Your task to perform on an android device: Add "alienware aurora" to the cart on walmart.com, then select checkout. Image 0: 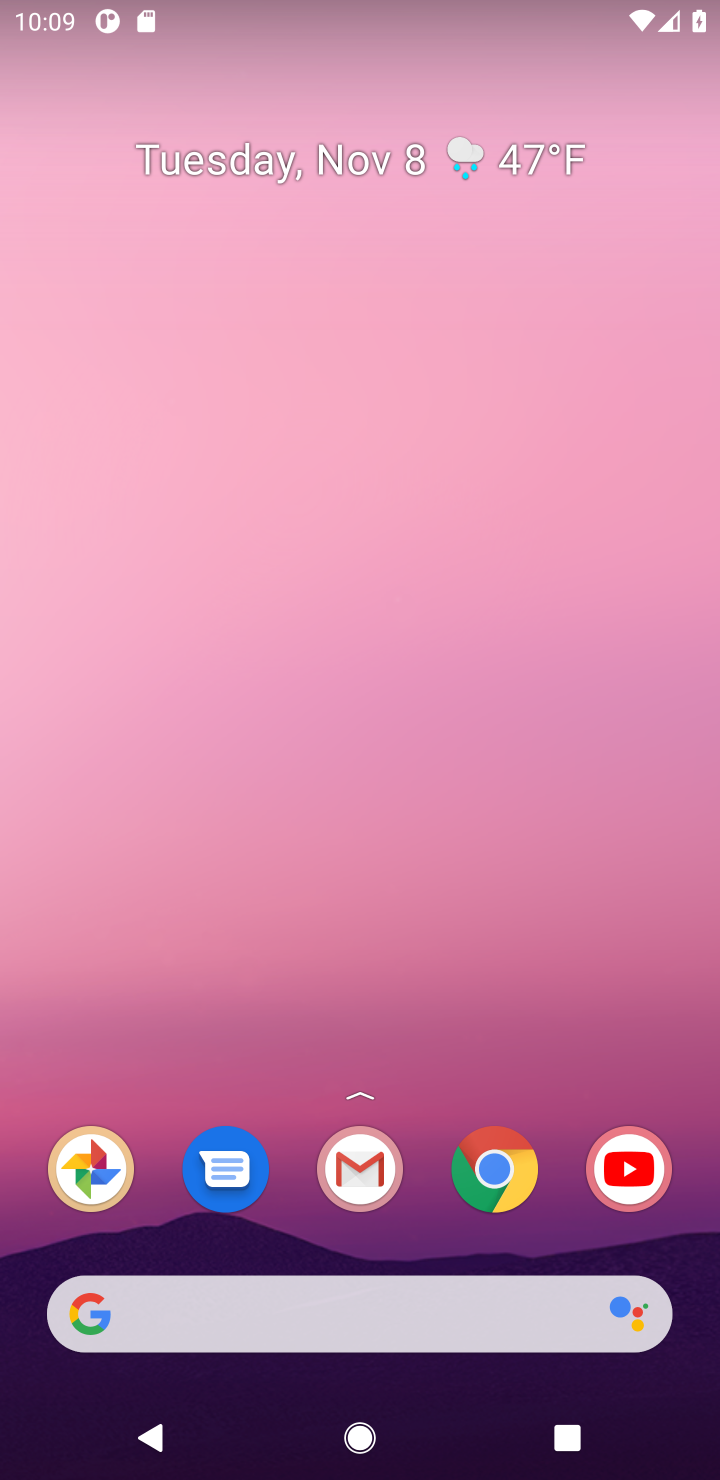
Step 0: click (483, 1161)
Your task to perform on an android device: Add "alienware aurora" to the cart on walmart.com, then select checkout. Image 1: 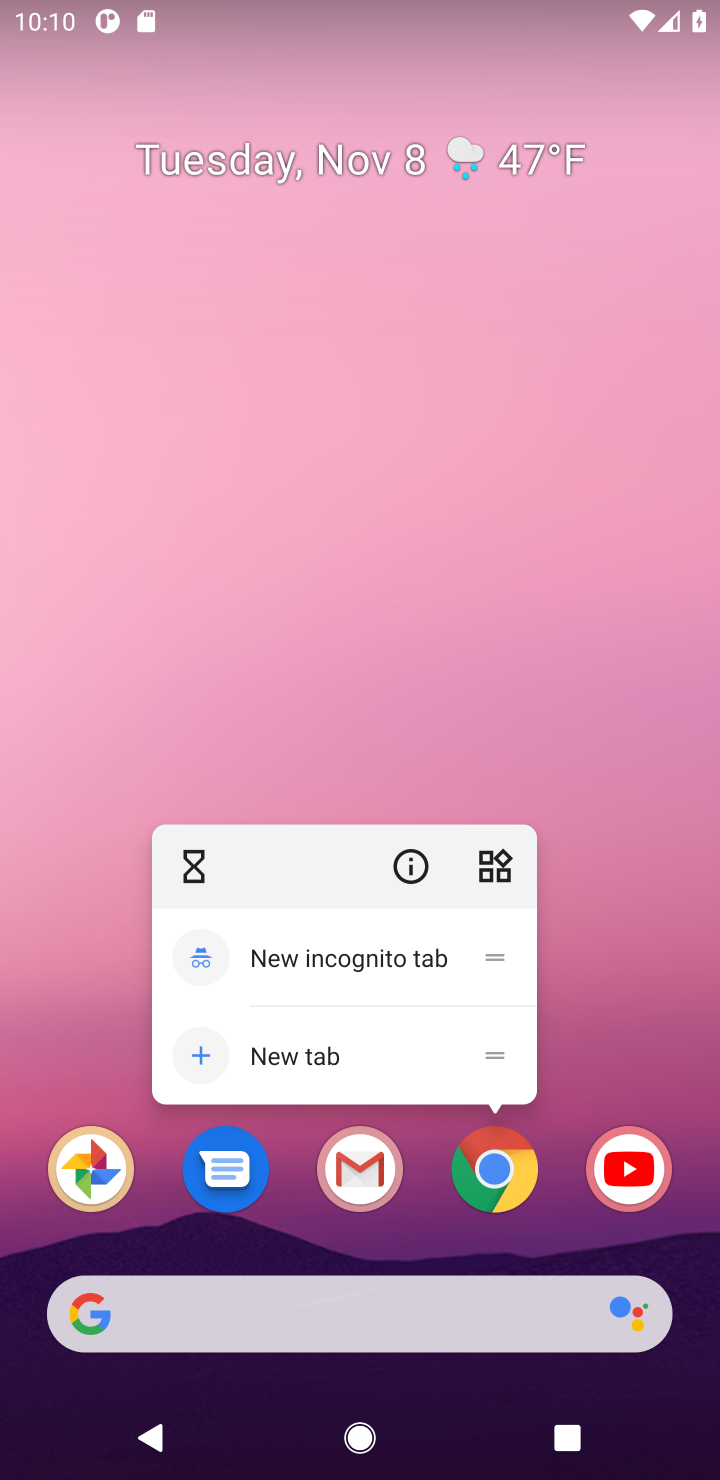
Step 1: click (483, 1161)
Your task to perform on an android device: Add "alienware aurora" to the cart on walmart.com, then select checkout. Image 2: 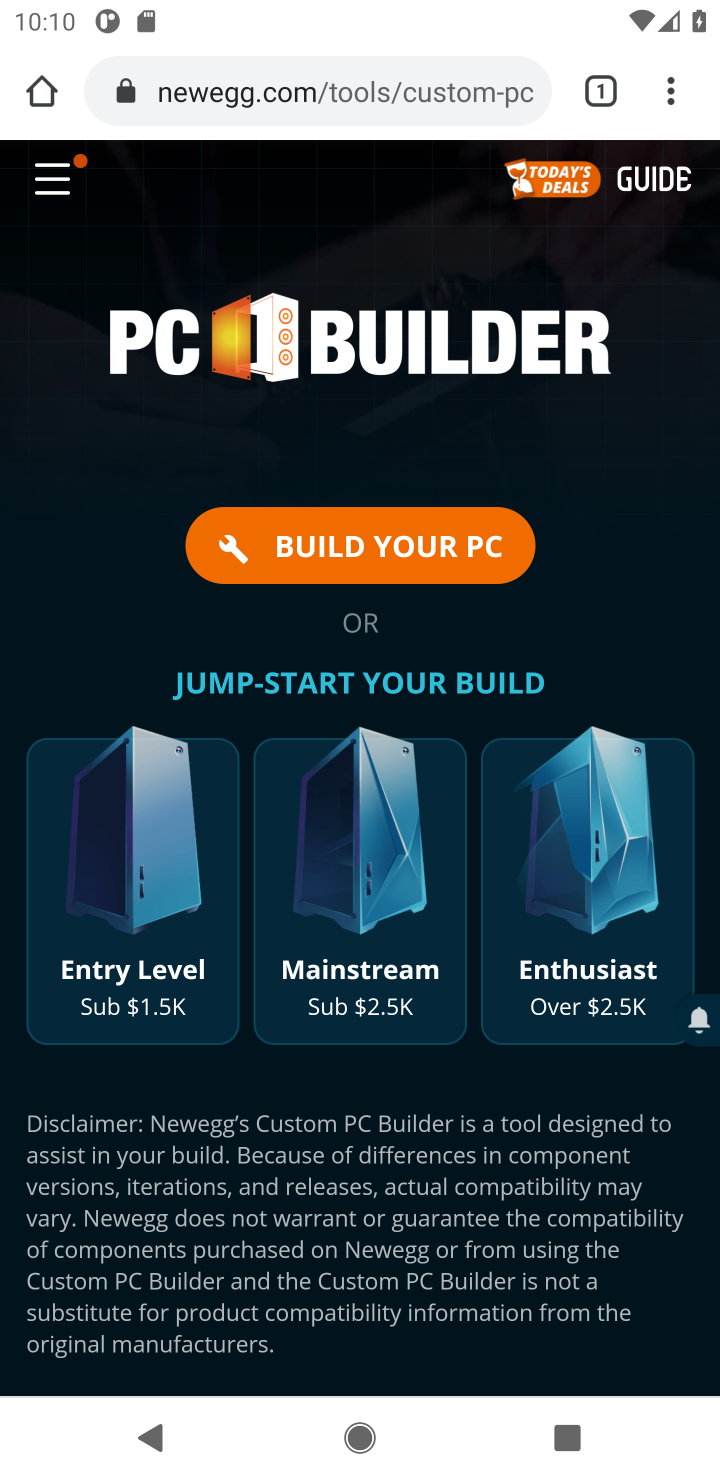
Step 2: click (228, 103)
Your task to perform on an android device: Add "alienware aurora" to the cart on walmart.com, then select checkout. Image 3: 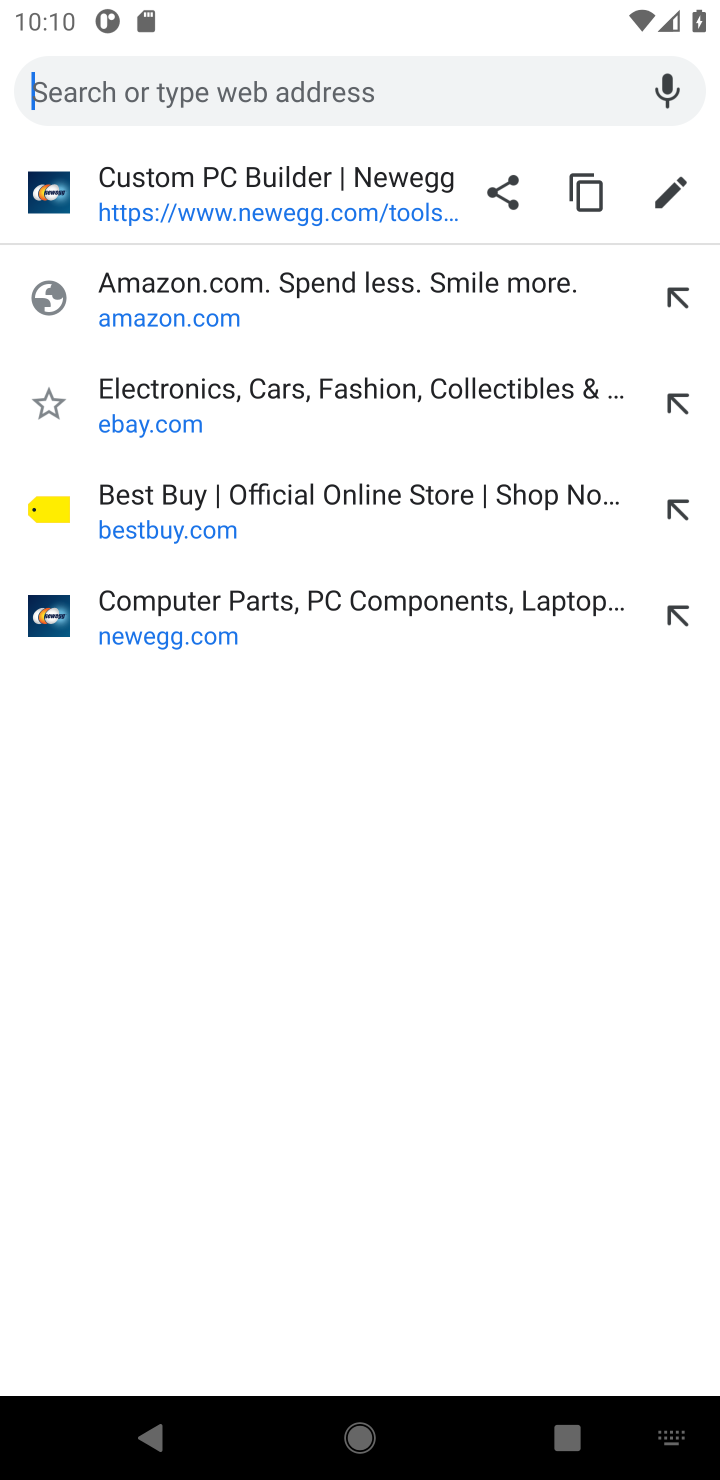
Step 3: type "walmart.com"
Your task to perform on an android device: Add "alienware aurora" to the cart on walmart.com, then select checkout. Image 4: 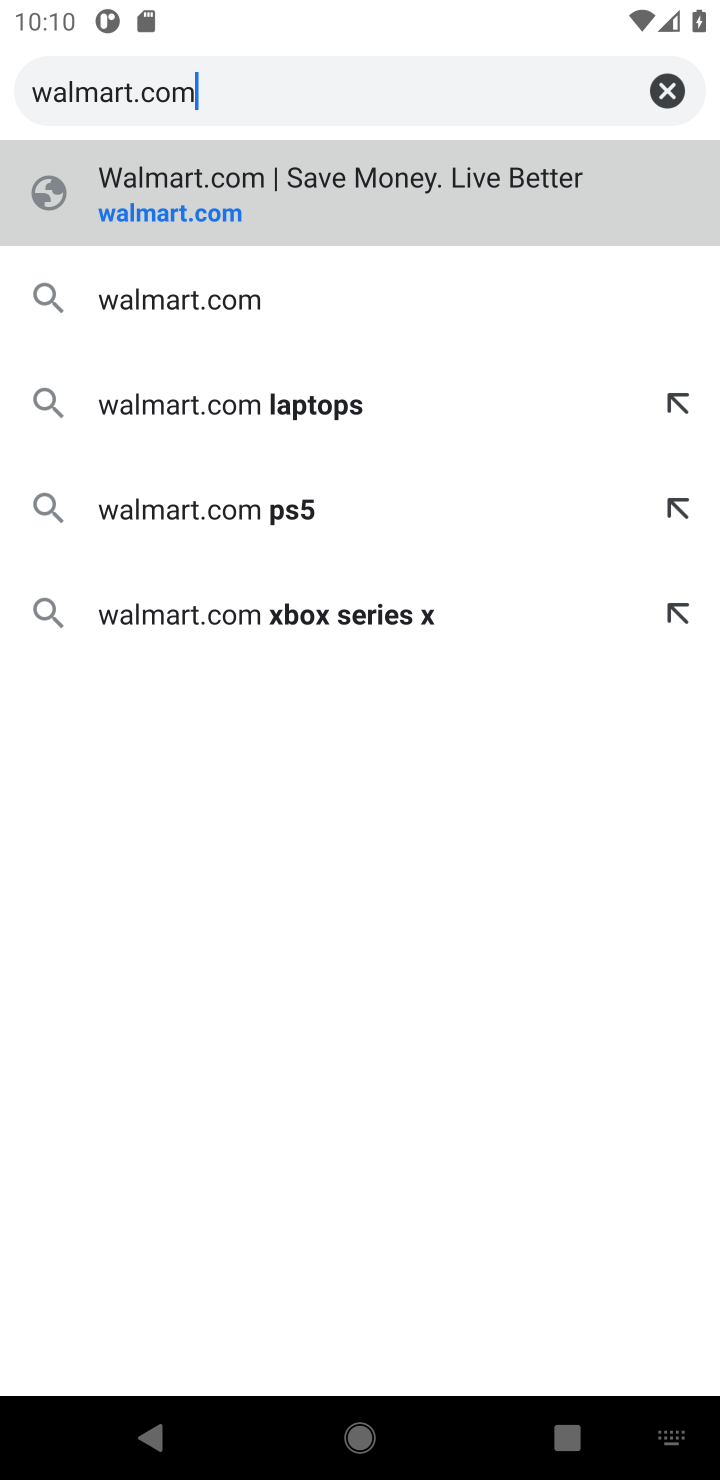
Step 4: click (232, 314)
Your task to perform on an android device: Add "alienware aurora" to the cart on walmart.com, then select checkout. Image 5: 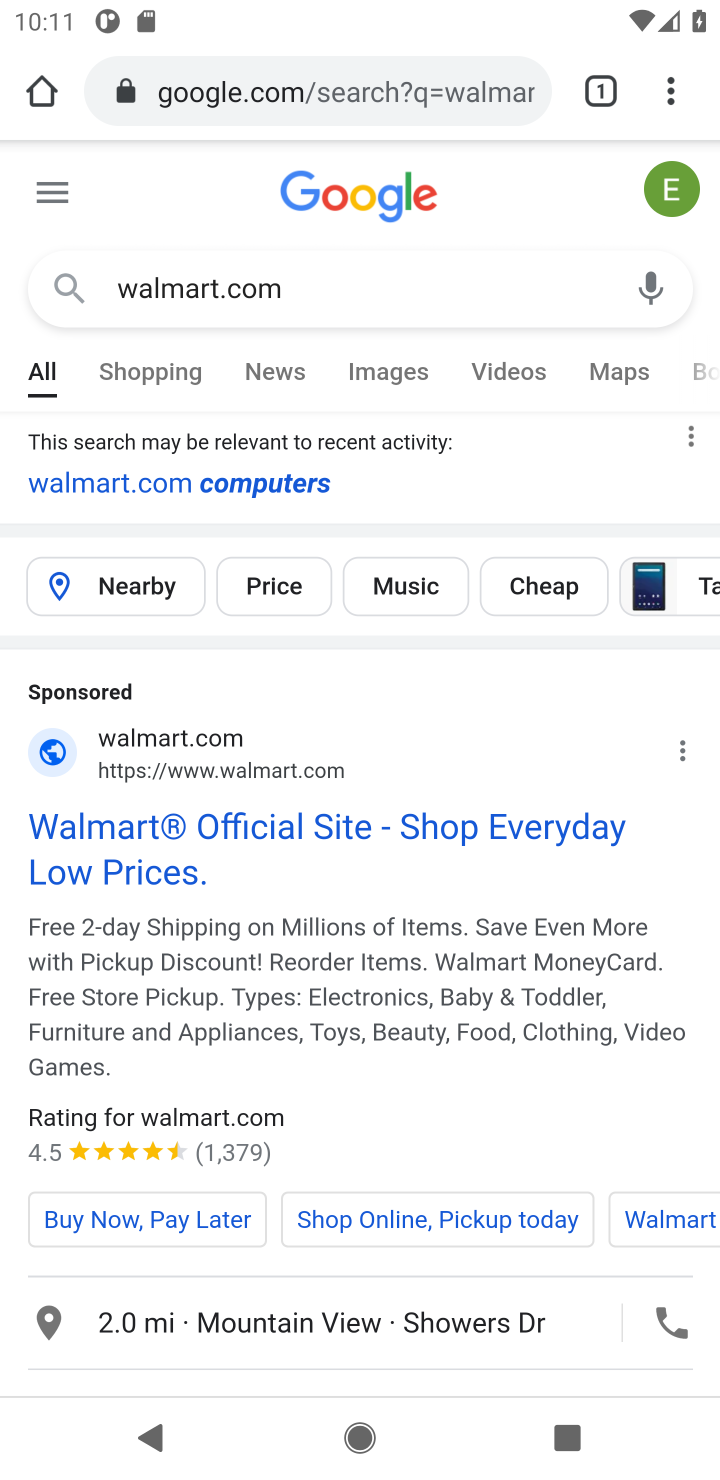
Step 5: click (222, 773)
Your task to perform on an android device: Add "alienware aurora" to the cart on walmart.com, then select checkout. Image 6: 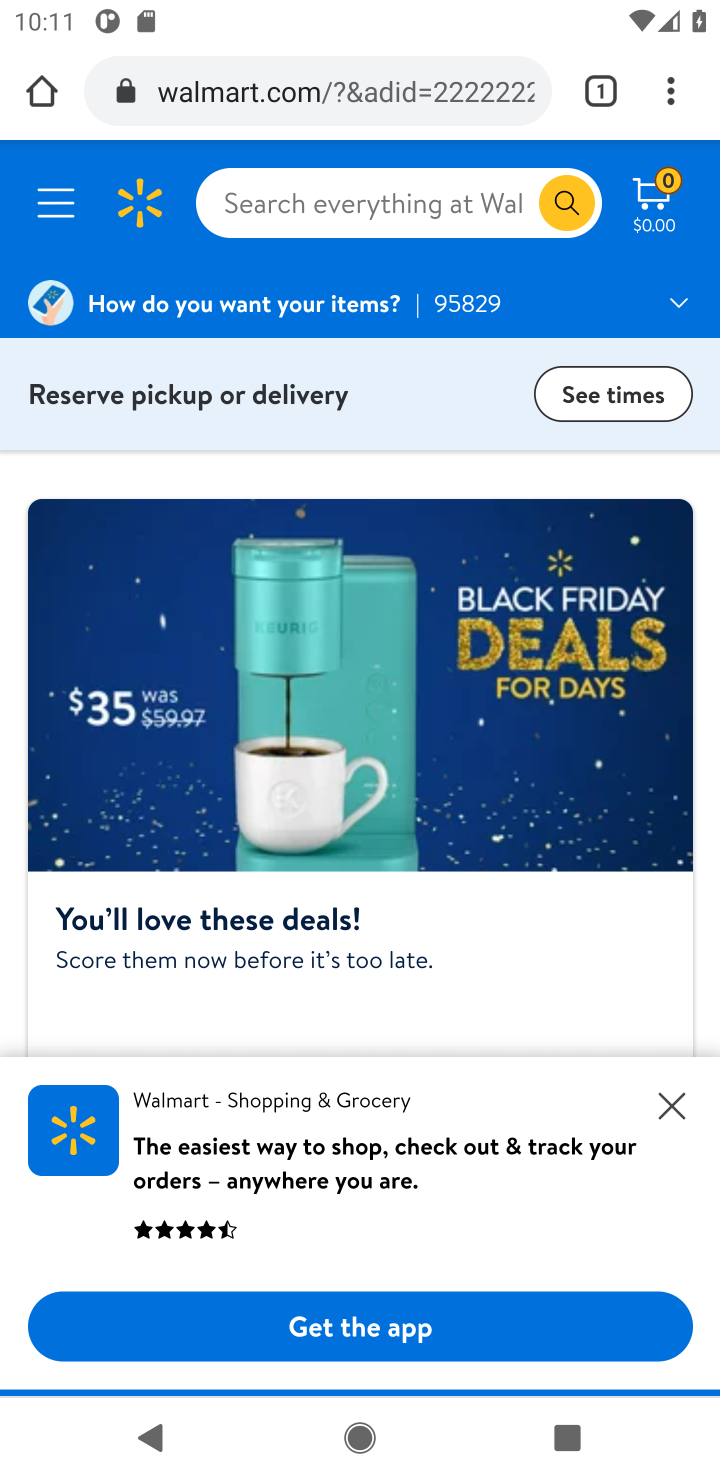
Step 6: click (670, 1099)
Your task to perform on an android device: Add "alienware aurora" to the cart on walmart.com, then select checkout. Image 7: 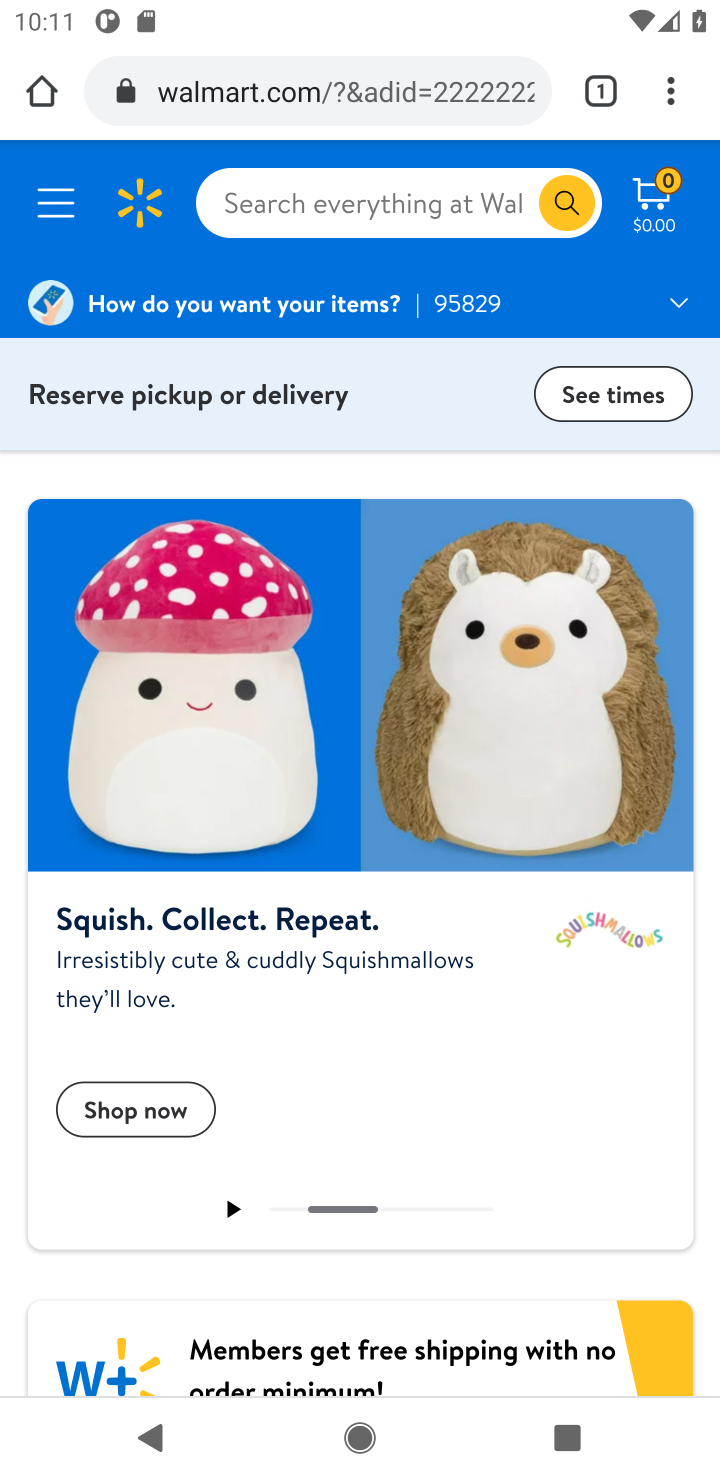
Step 7: click (426, 200)
Your task to perform on an android device: Add "alienware aurora" to the cart on walmart.com, then select checkout. Image 8: 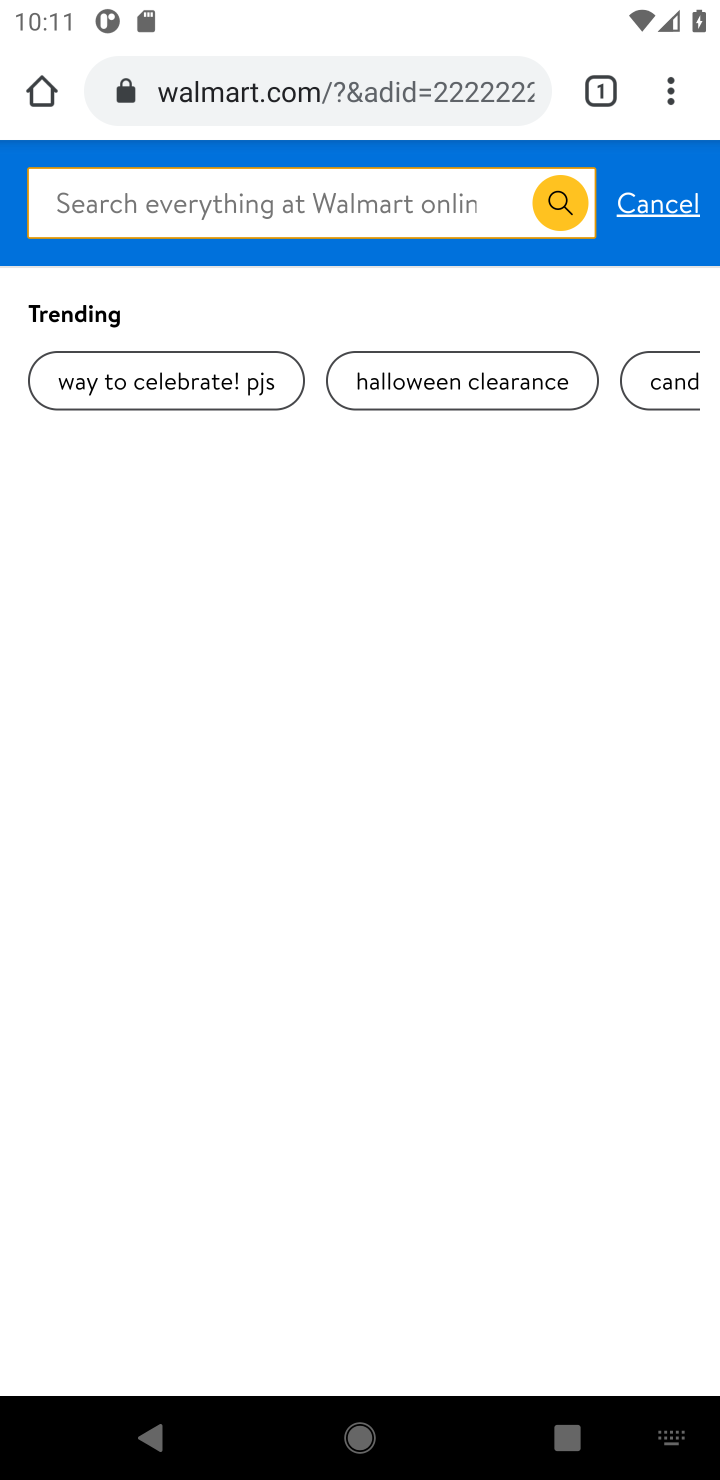
Step 8: type "alienware aurora"
Your task to perform on an android device: Add "alienware aurora" to the cart on walmart.com, then select checkout. Image 9: 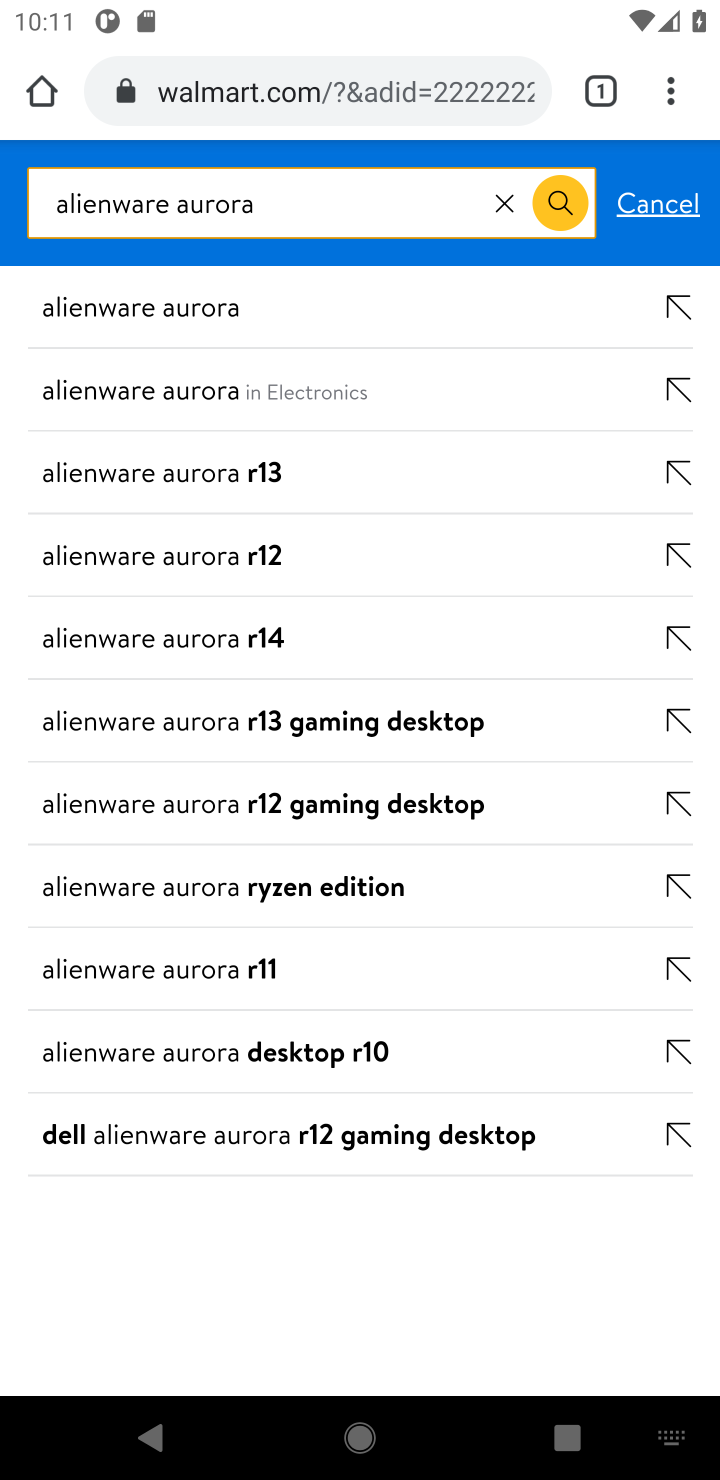
Step 9: click (199, 313)
Your task to perform on an android device: Add "alienware aurora" to the cart on walmart.com, then select checkout. Image 10: 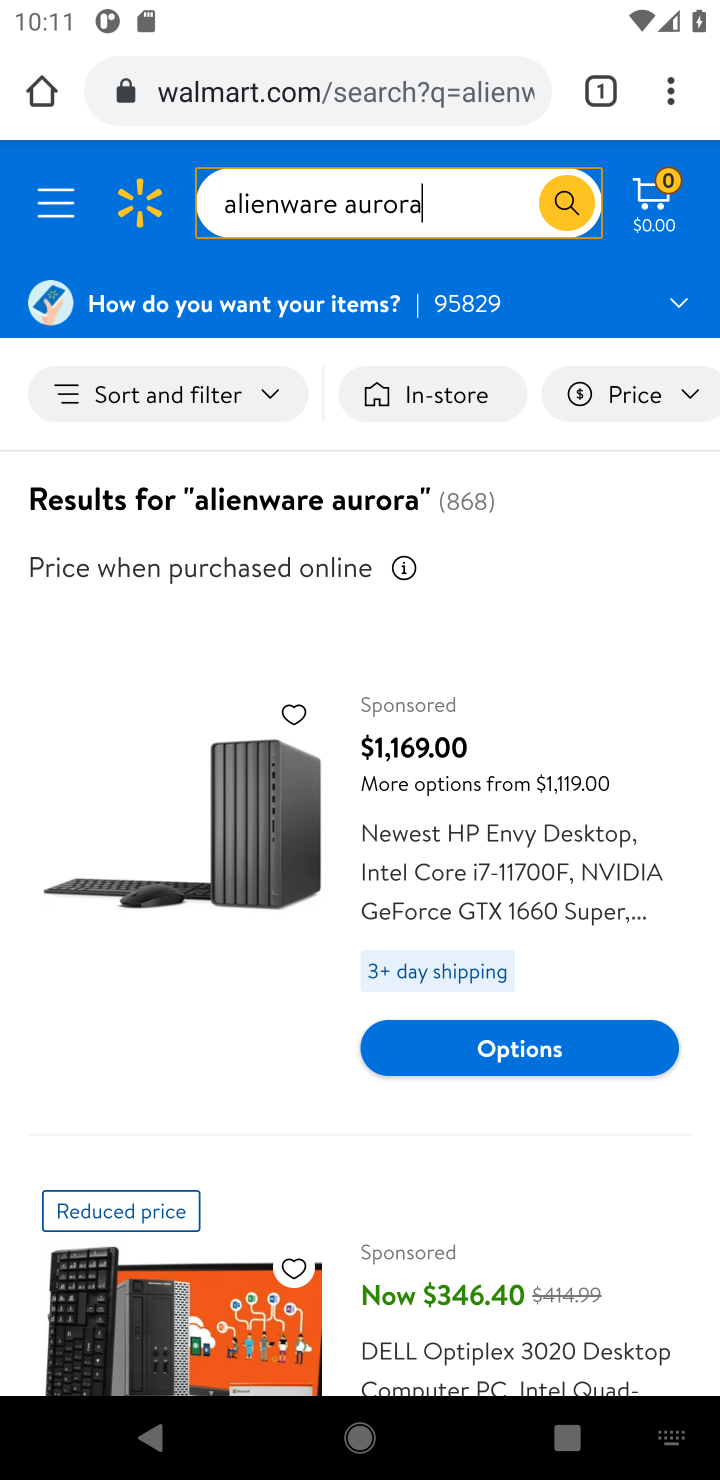
Step 10: drag from (345, 1143) to (276, 492)
Your task to perform on an android device: Add "alienware aurora" to the cart on walmart.com, then select checkout. Image 11: 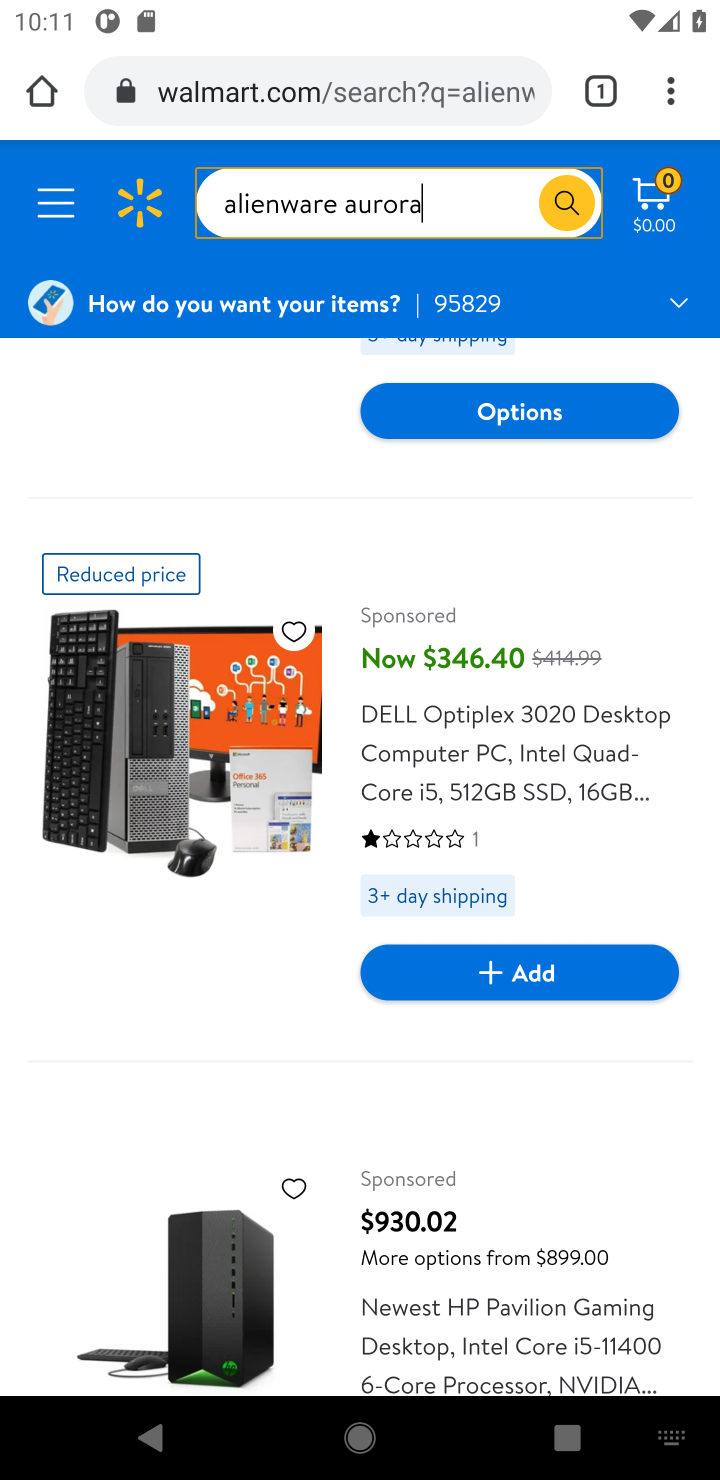
Step 11: drag from (543, 1160) to (506, 679)
Your task to perform on an android device: Add "alienware aurora" to the cart on walmart.com, then select checkout. Image 12: 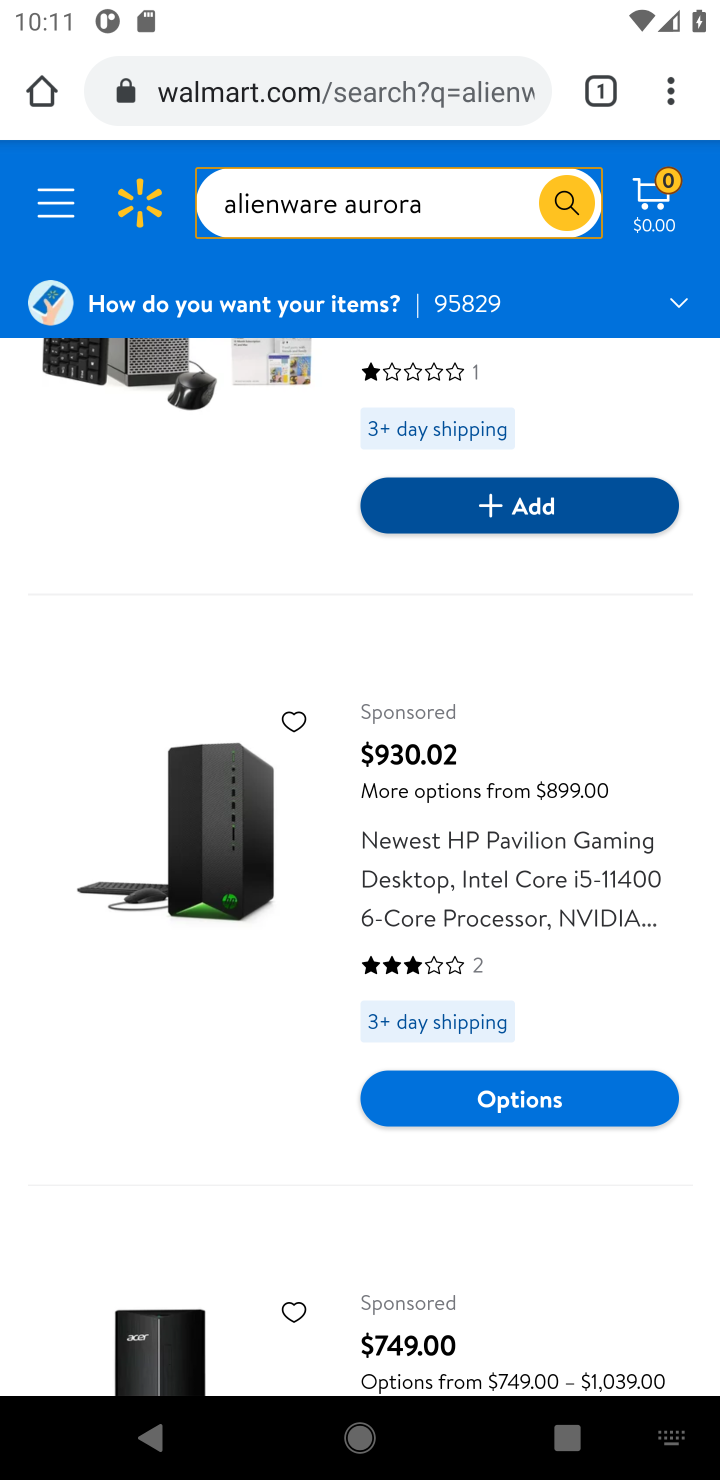
Step 12: drag from (198, 878) to (179, 421)
Your task to perform on an android device: Add "alienware aurora" to the cart on walmart.com, then select checkout. Image 13: 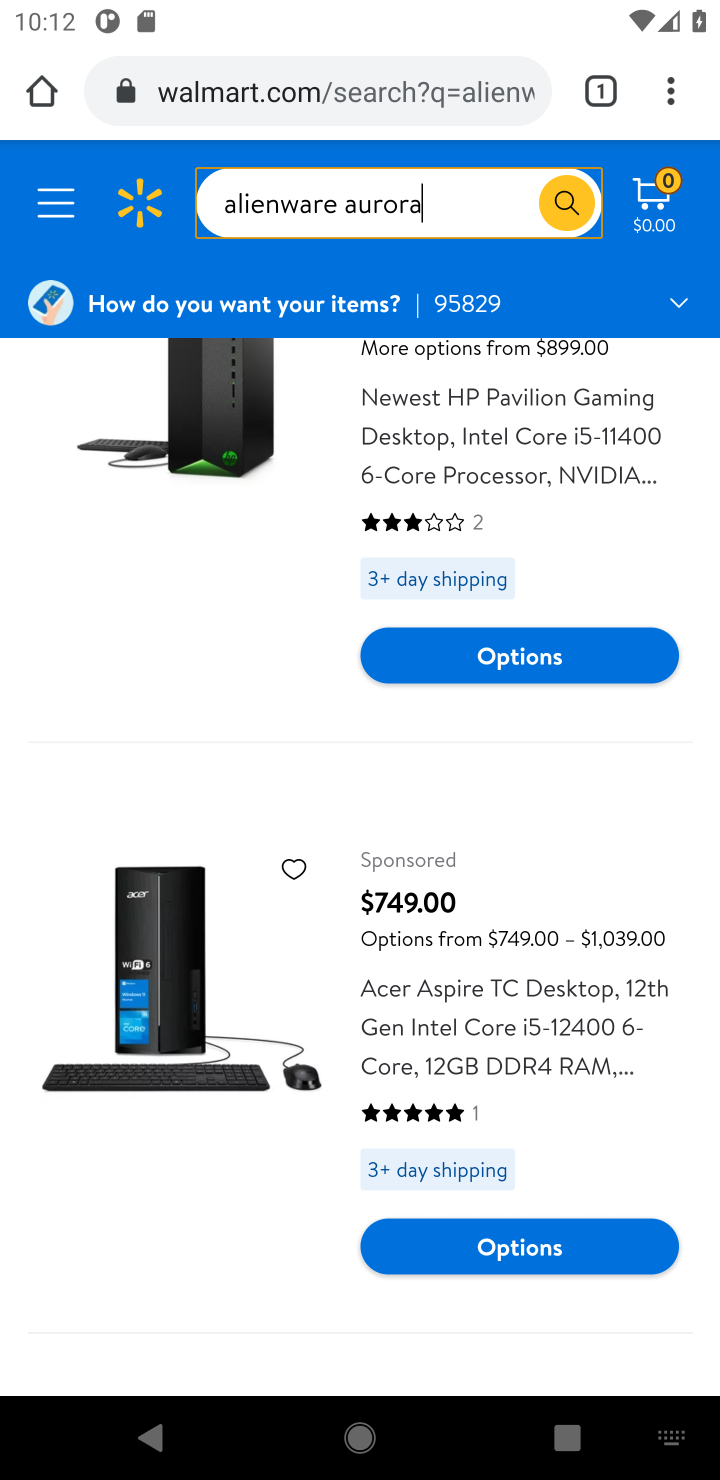
Step 13: drag from (578, 1078) to (520, 415)
Your task to perform on an android device: Add "alienware aurora" to the cart on walmart.com, then select checkout. Image 14: 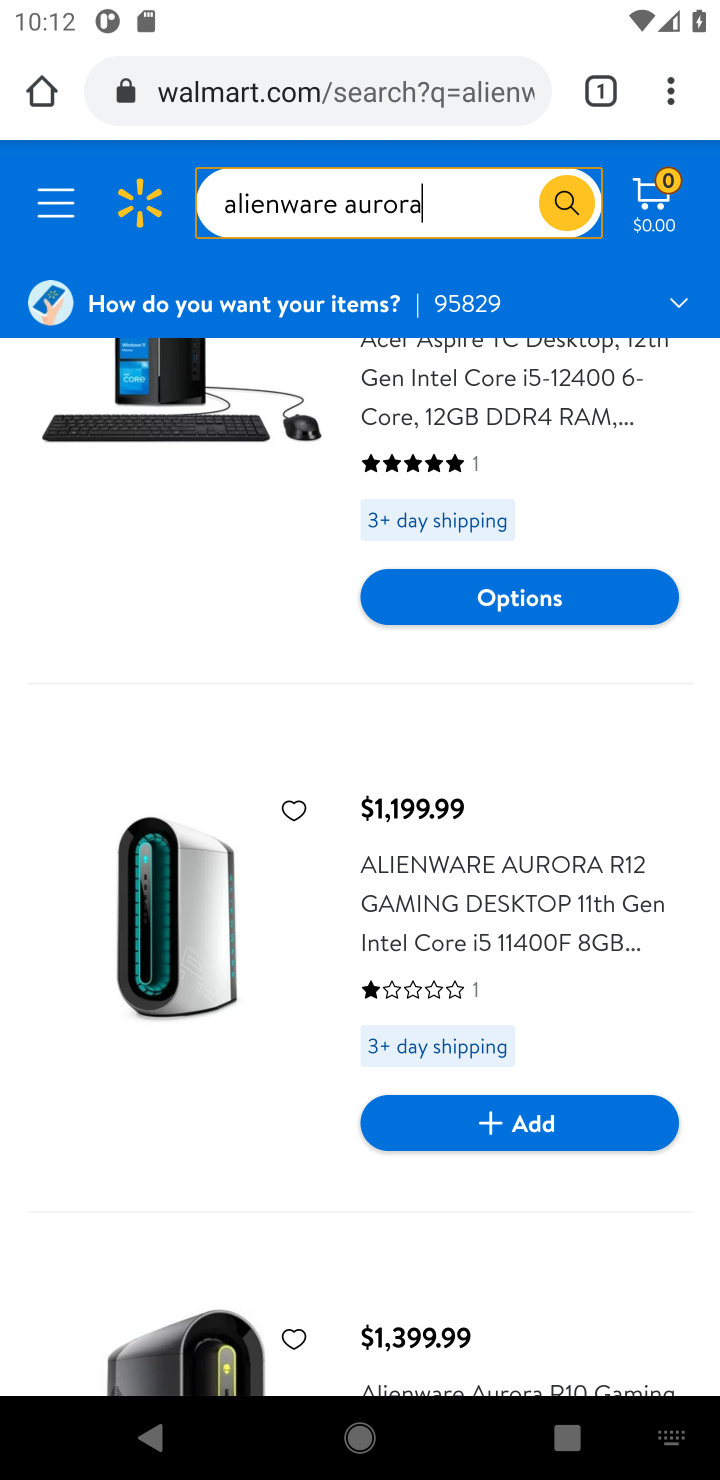
Step 14: click (154, 914)
Your task to perform on an android device: Add "alienware aurora" to the cart on walmart.com, then select checkout. Image 15: 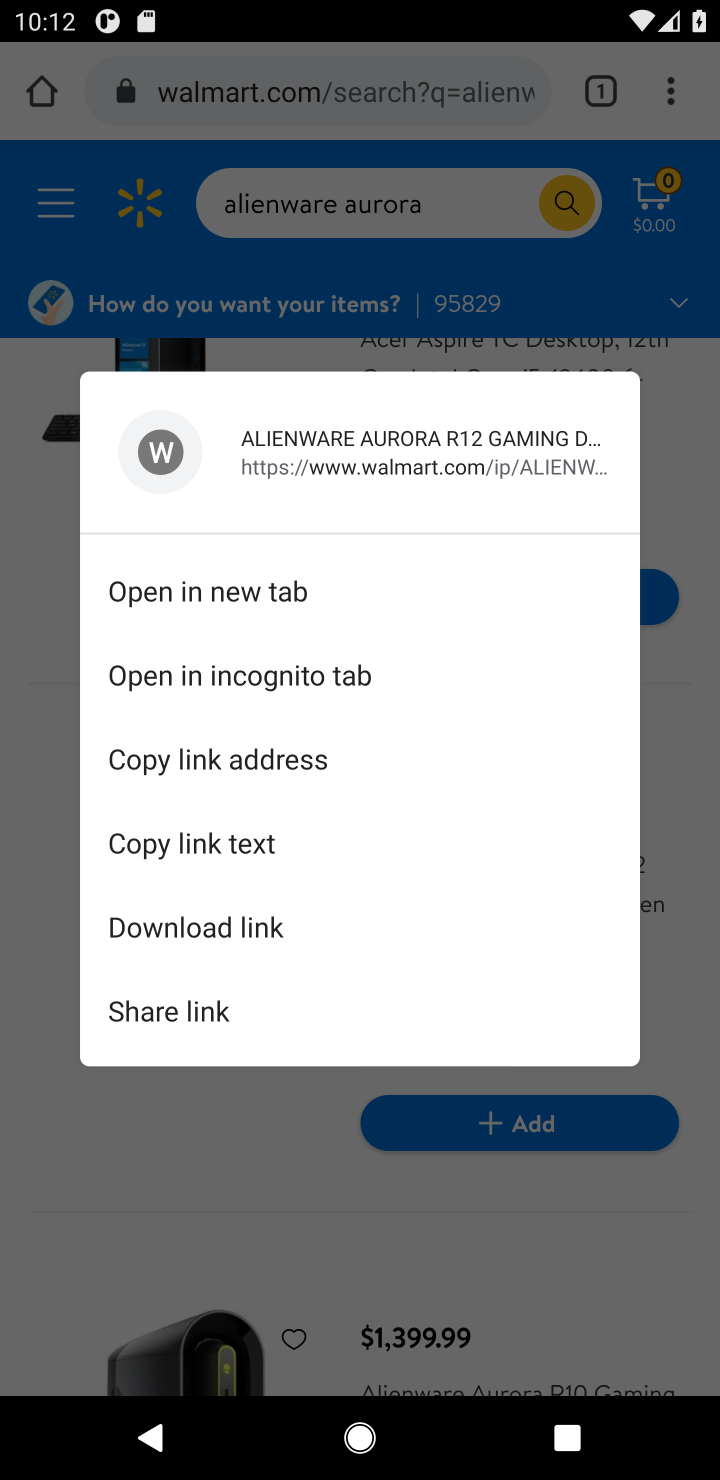
Step 15: click (324, 1160)
Your task to perform on an android device: Add "alienware aurora" to the cart on walmart.com, then select checkout. Image 16: 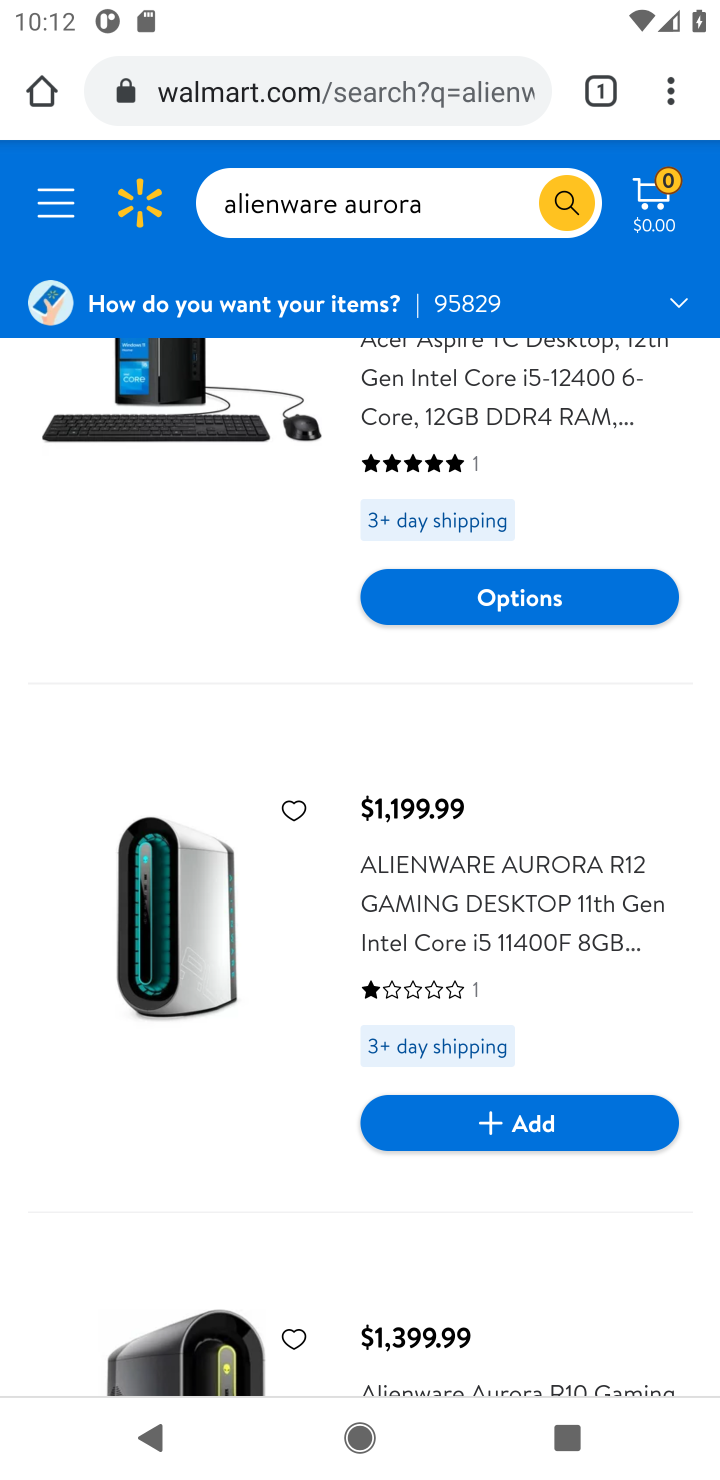
Step 16: click (158, 919)
Your task to perform on an android device: Add "alienware aurora" to the cart on walmart.com, then select checkout. Image 17: 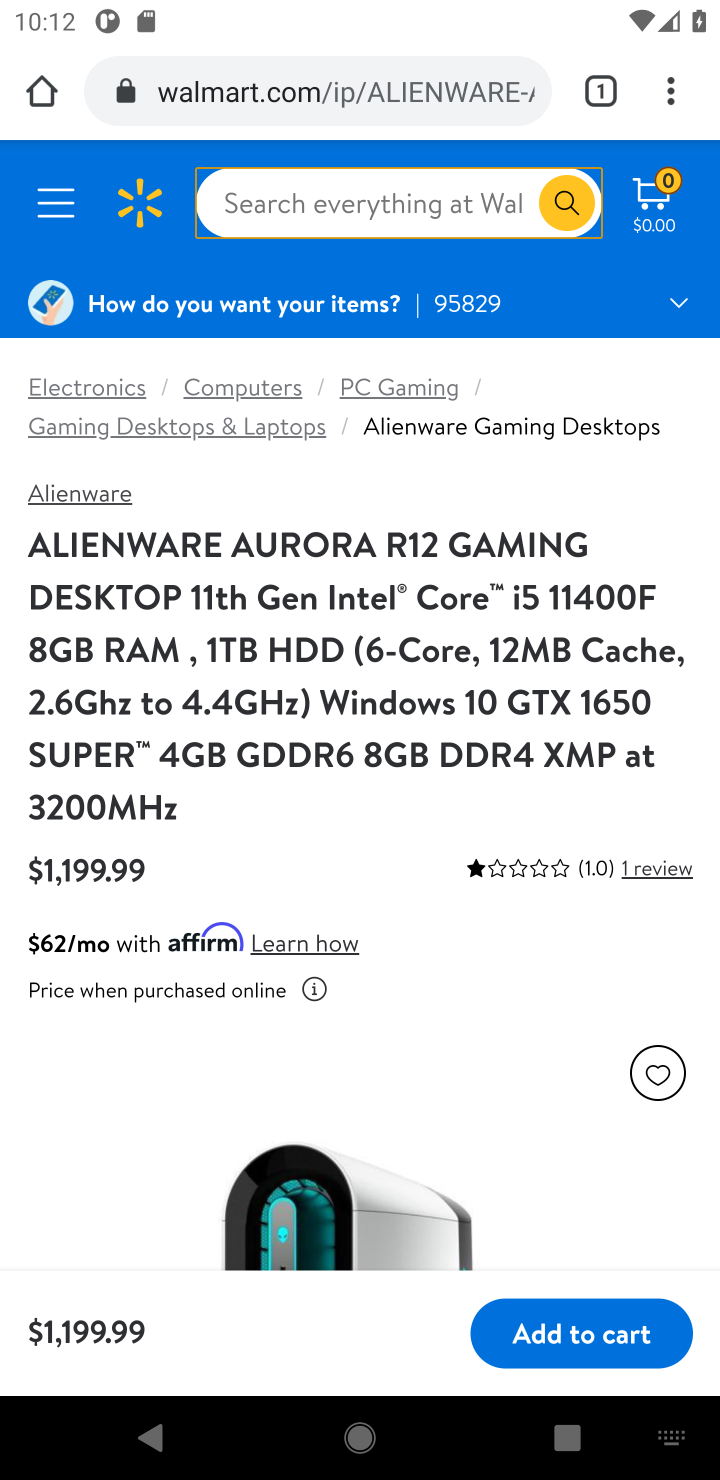
Step 17: click (608, 1340)
Your task to perform on an android device: Add "alienware aurora" to the cart on walmart.com, then select checkout. Image 18: 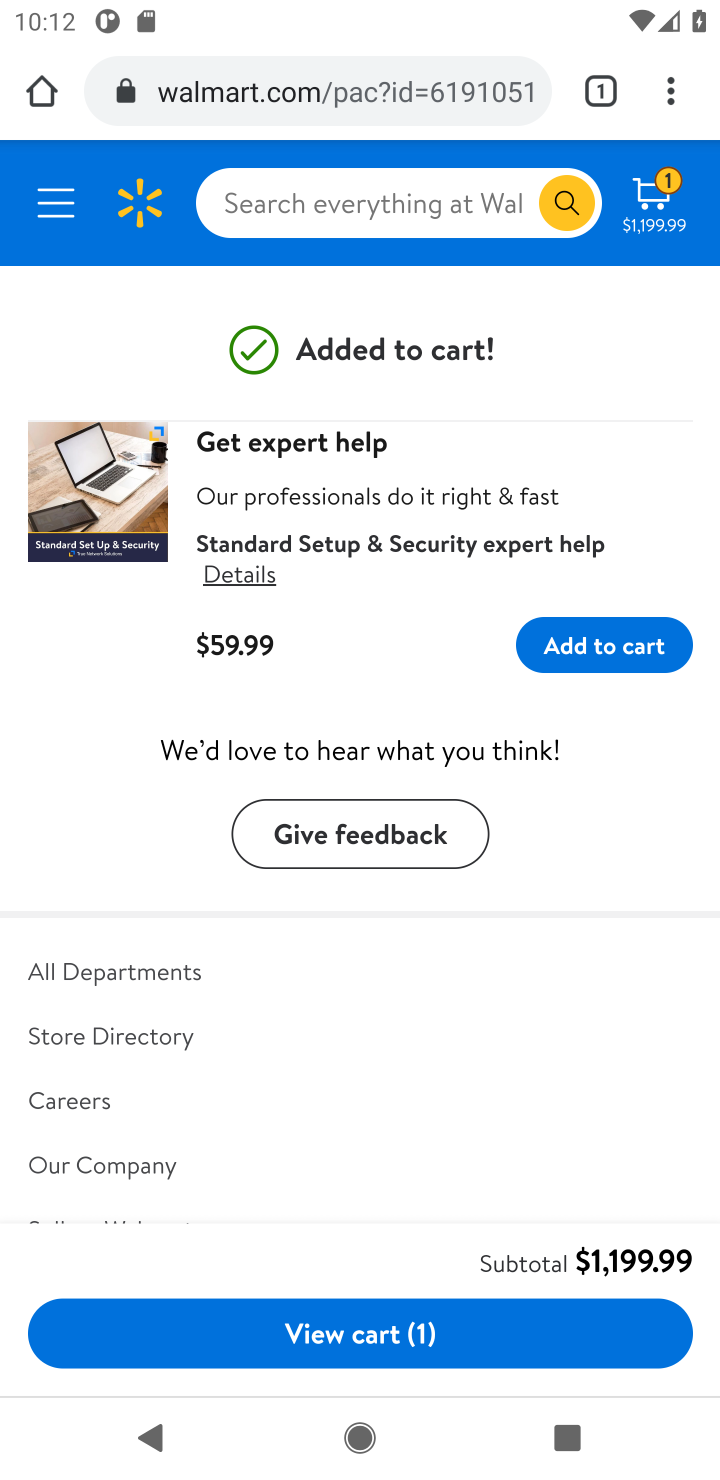
Step 18: drag from (528, 859) to (688, 1475)
Your task to perform on an android device: Add "alienware aurora" to the cart on walmart.com, then select checkout. Image 19: 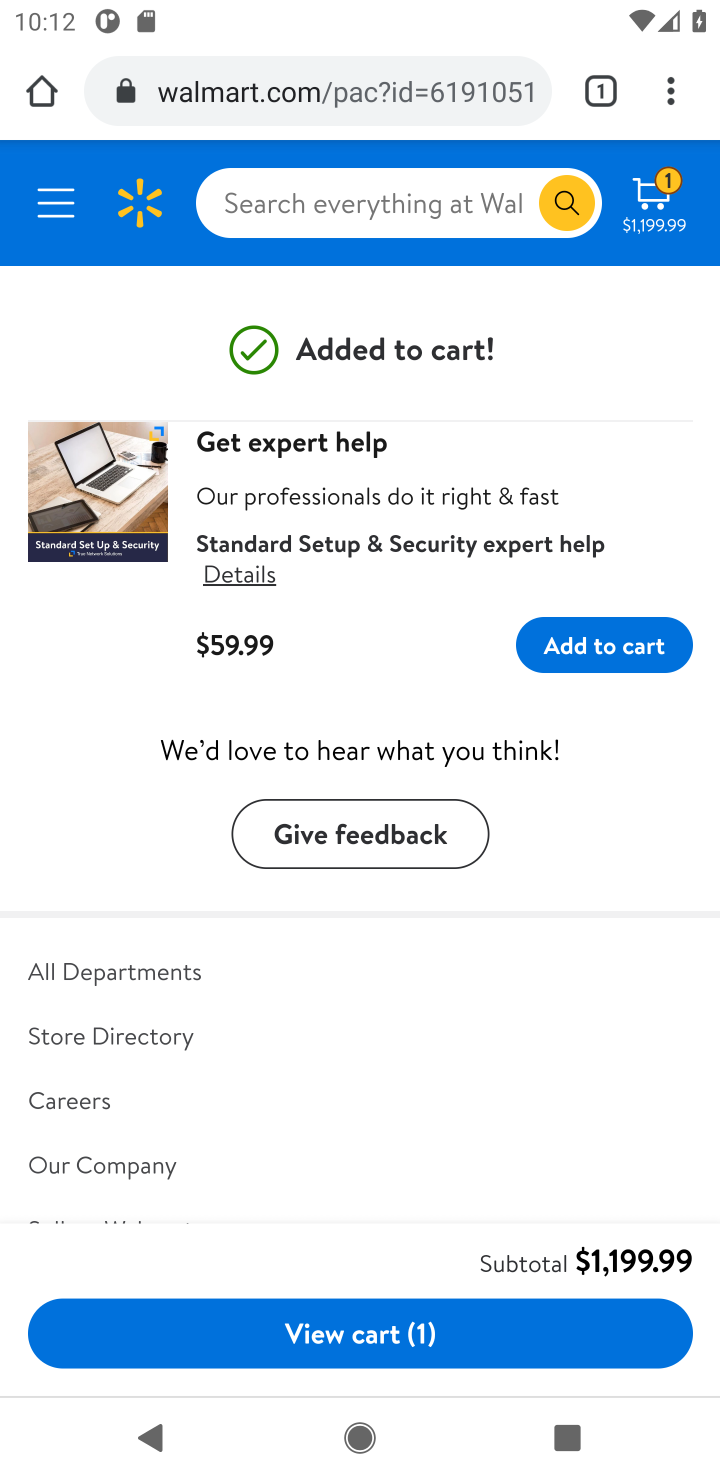
Step 19: click (672, 206)
Your task to perform on an android device: Add "alienware aurora" to the cart on walmart.com, then select checkout. Image 20: 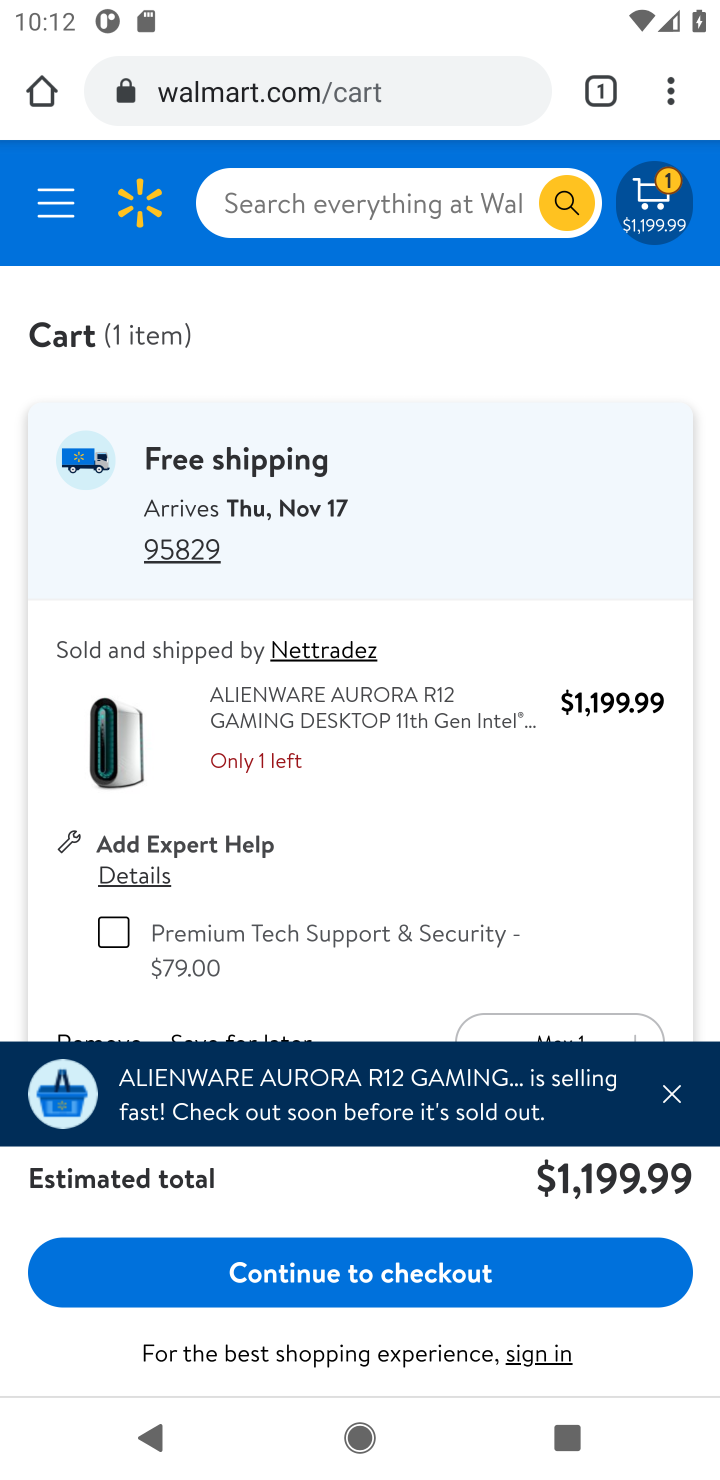
Step 20: click (384, 1274)
Your task to perform on an android device: Add "alienware aurora" to the cart on walmart.com, then select checkout. Image 21: 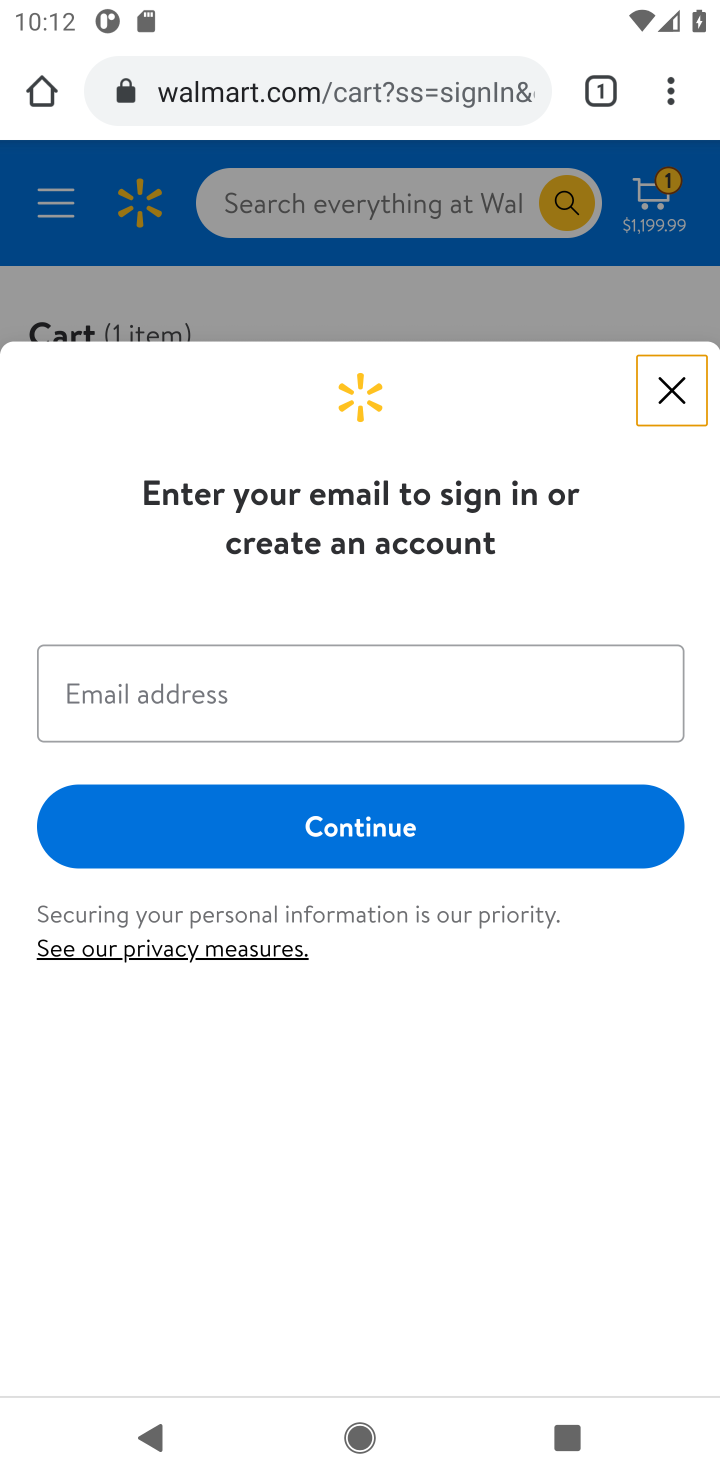
Step 21: task complete